Your task to perform on an android device: Go to Maps Image 0: 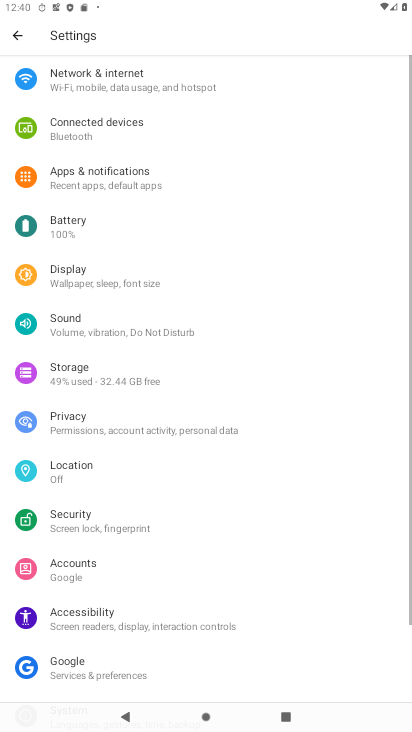
Step 0: press home button
Your task to perform on an android device: Go to Maps Image 1: 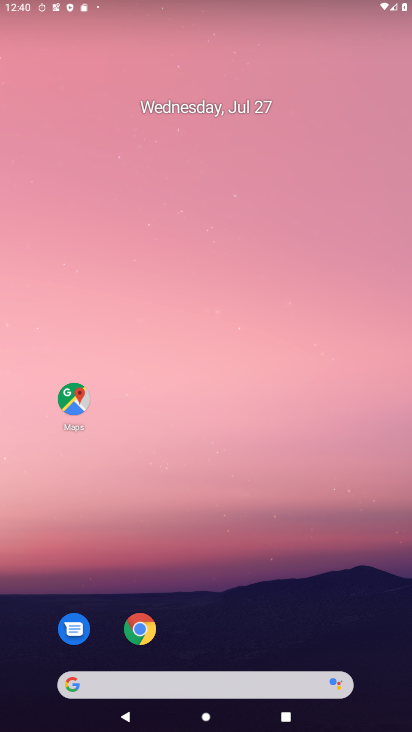
Step 1: drag from (337, 591) to (125, 26)
Your task to perform on an android device: Go to Maps Image 2: 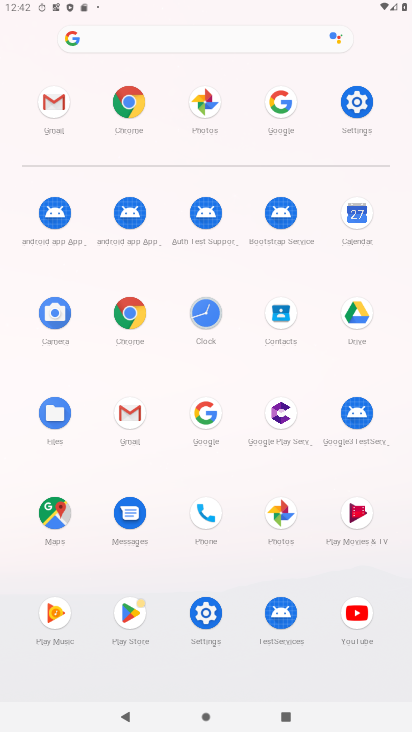
Step 2: click (46, 518)
Your task to perform on an android device: Go to Maps Image 3: 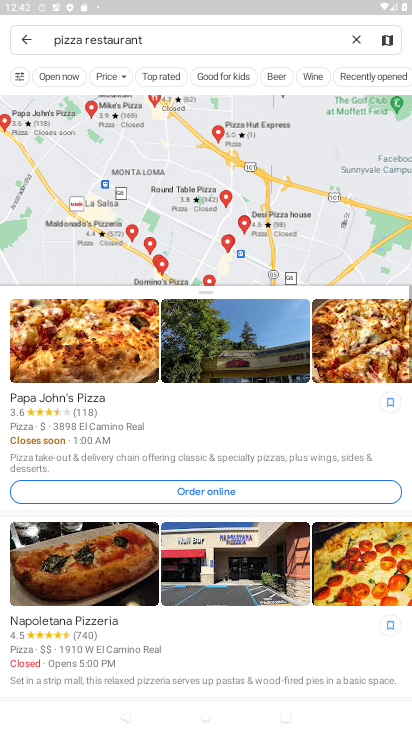
Step 3: click (352, 38)
Your task to perform on an android device: Go to Maps Image 4: 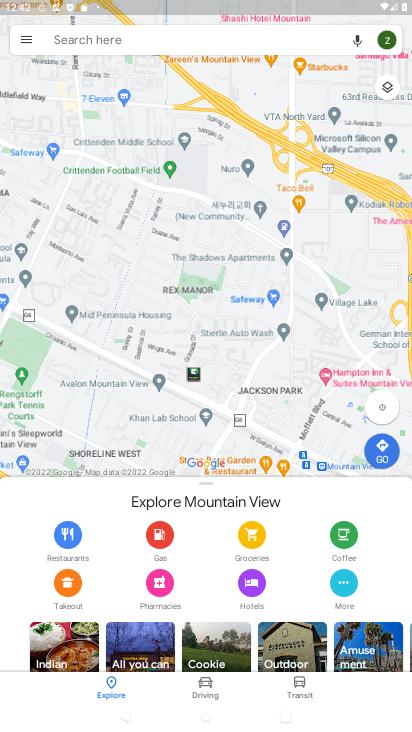
Step 4: task complete